Your task to perform on an android device: turn off notifications settings in the gmail app Image 0: 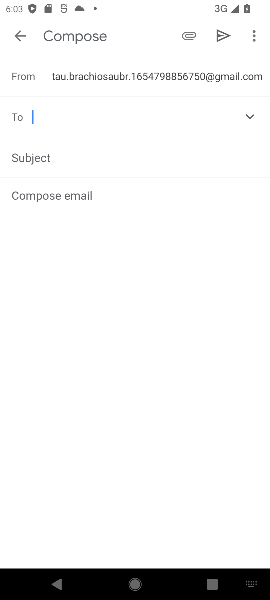
Step 0: press home button
Your task to perform on an android device: turn off notifications settings in the gmail app Image 1: 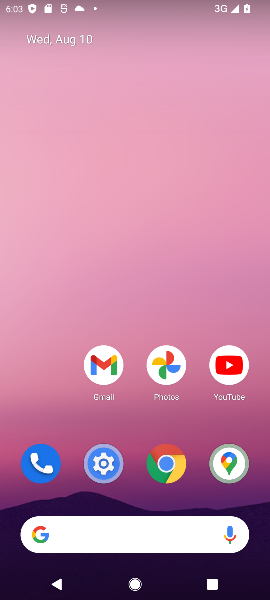
Step 1: click (101, 372)
Your task to perform on an android device: turn off notifications settings in the gmail app Image 2: 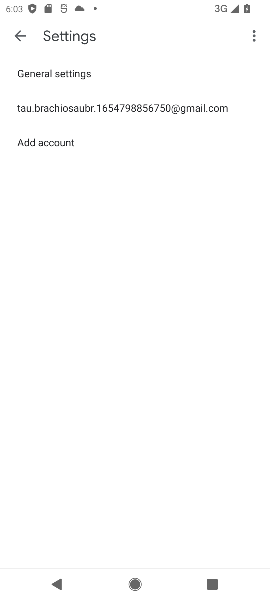
Step 2: click (39, 71)
Your task to perform on an android device: turn off notifications settings in the gmail app Image 3: 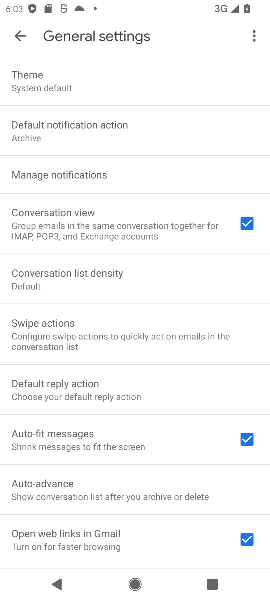
Step 3: click (74, 172)
Your task to perform on an android device: turn off notifications settings in the gmail app Image 4: 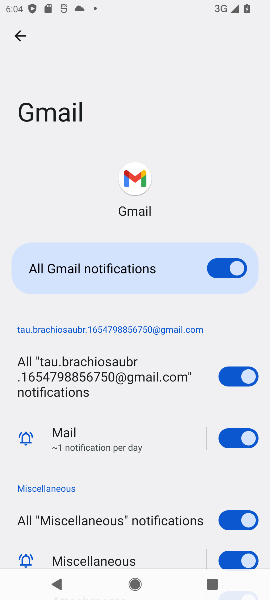
Step 4: click (224, 260)
Your task to perform on an android device: turn off notifications settings in the gmail app Image 5: 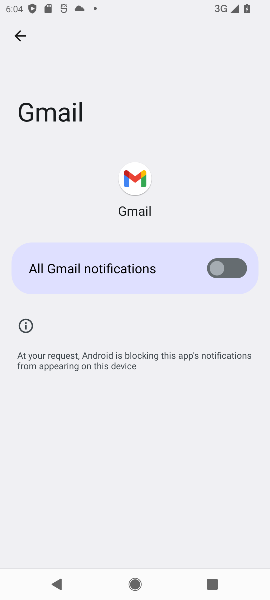
Step 5: task complete